Your task to perform on an android device: open app "Messenger Lite" (install if not already installed) Image 0: 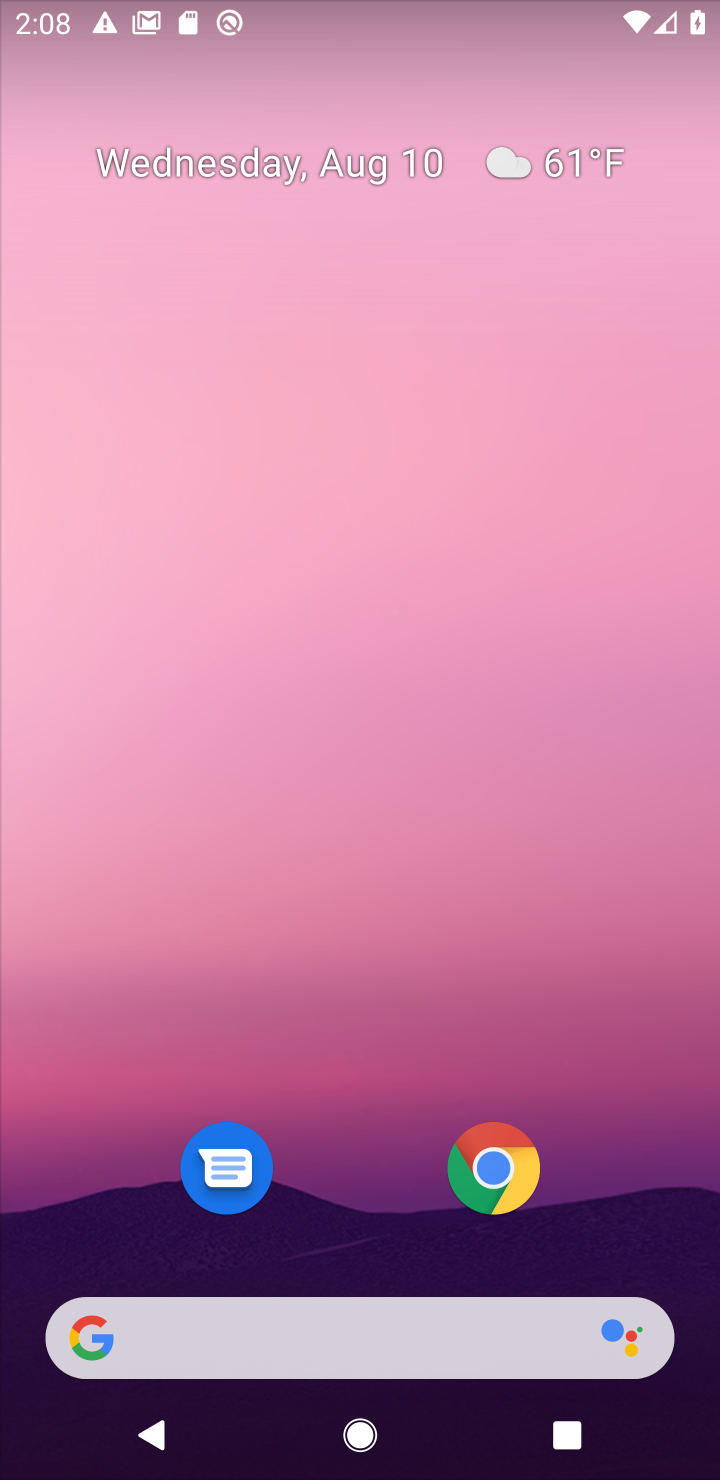
Step 0: drag from (299, 1154) to (271, 192)
Your task to perform on an android device: open app "Messenger Lite" (install if not already installed) Image 1: 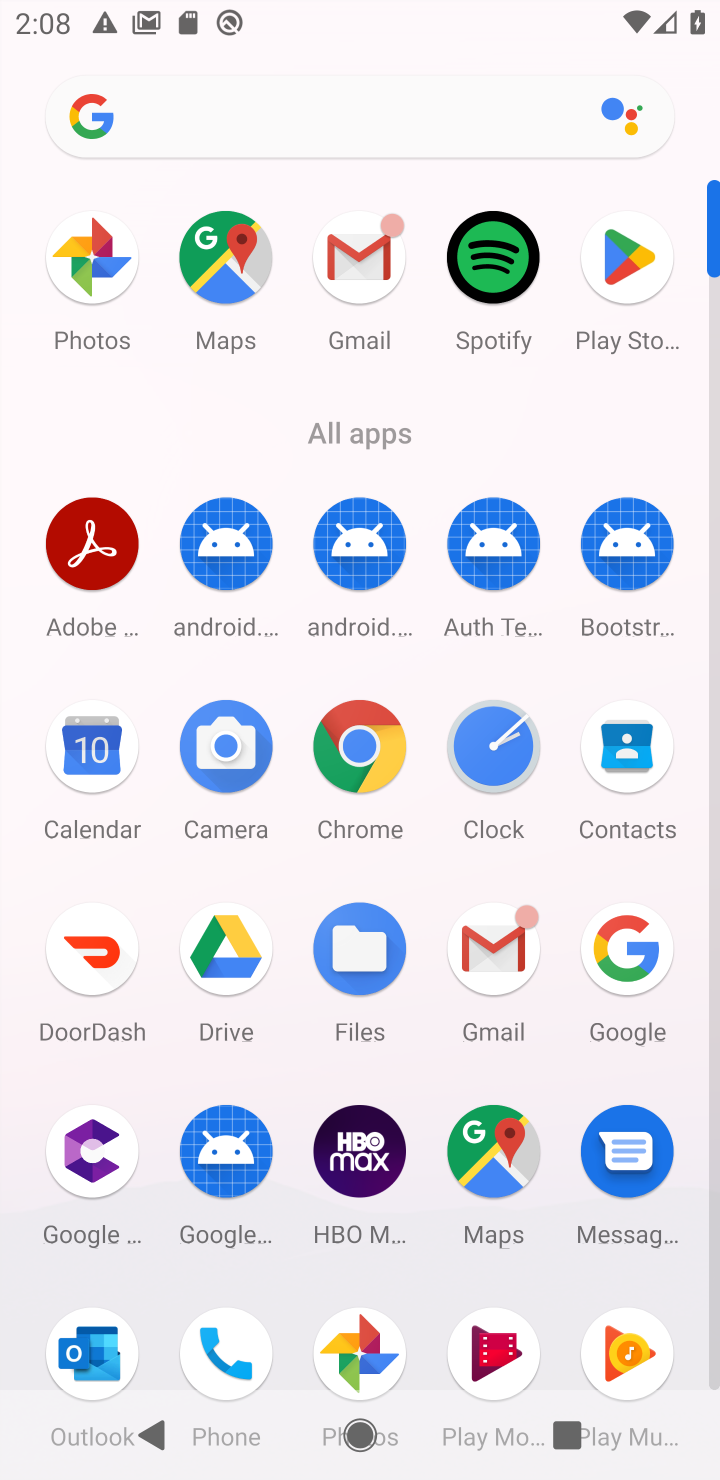
Step 1: click (625, 263)
Your task to perform on an android device: open app "Messenger Lite" (install if not already installed) Image 2: 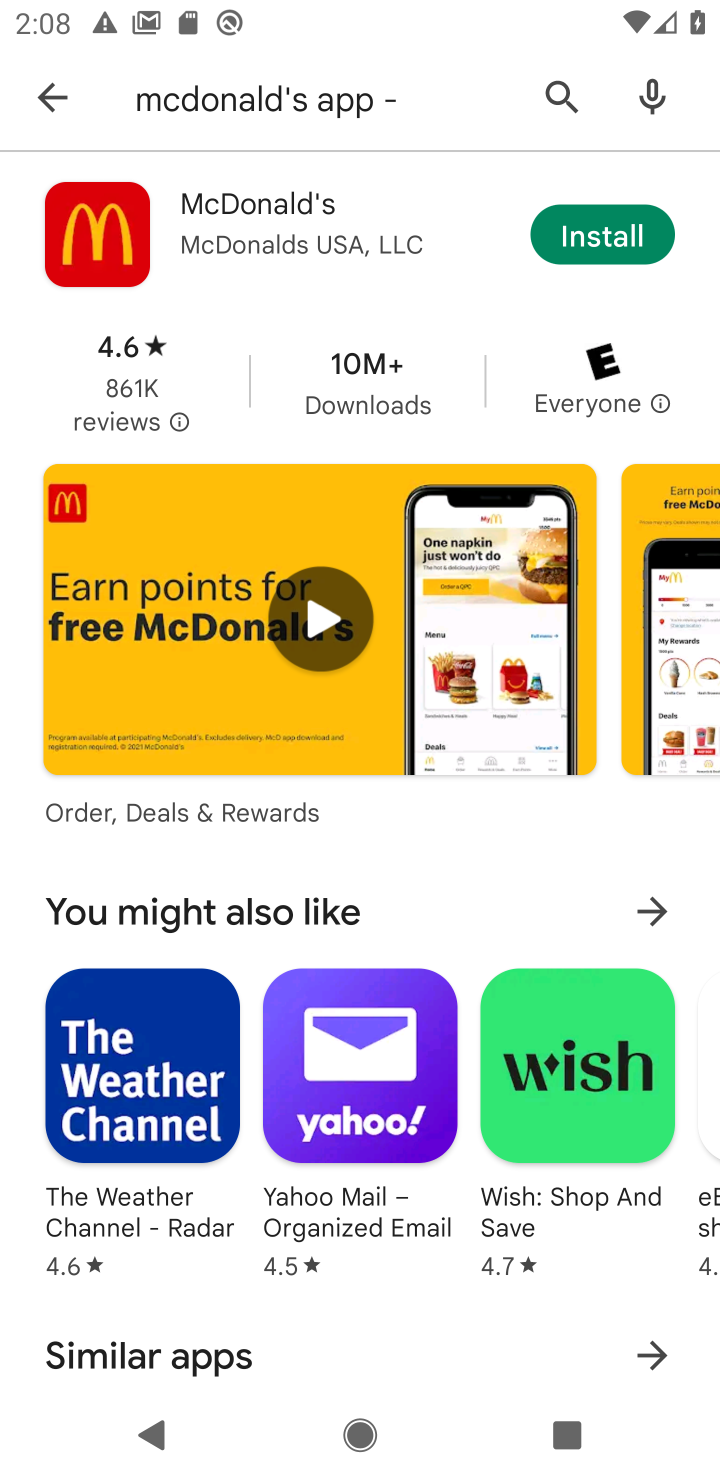
Step 2: press back button
Your task to perform on an android device: open app "Messenger Lite" (install if not already installed) Image 3: 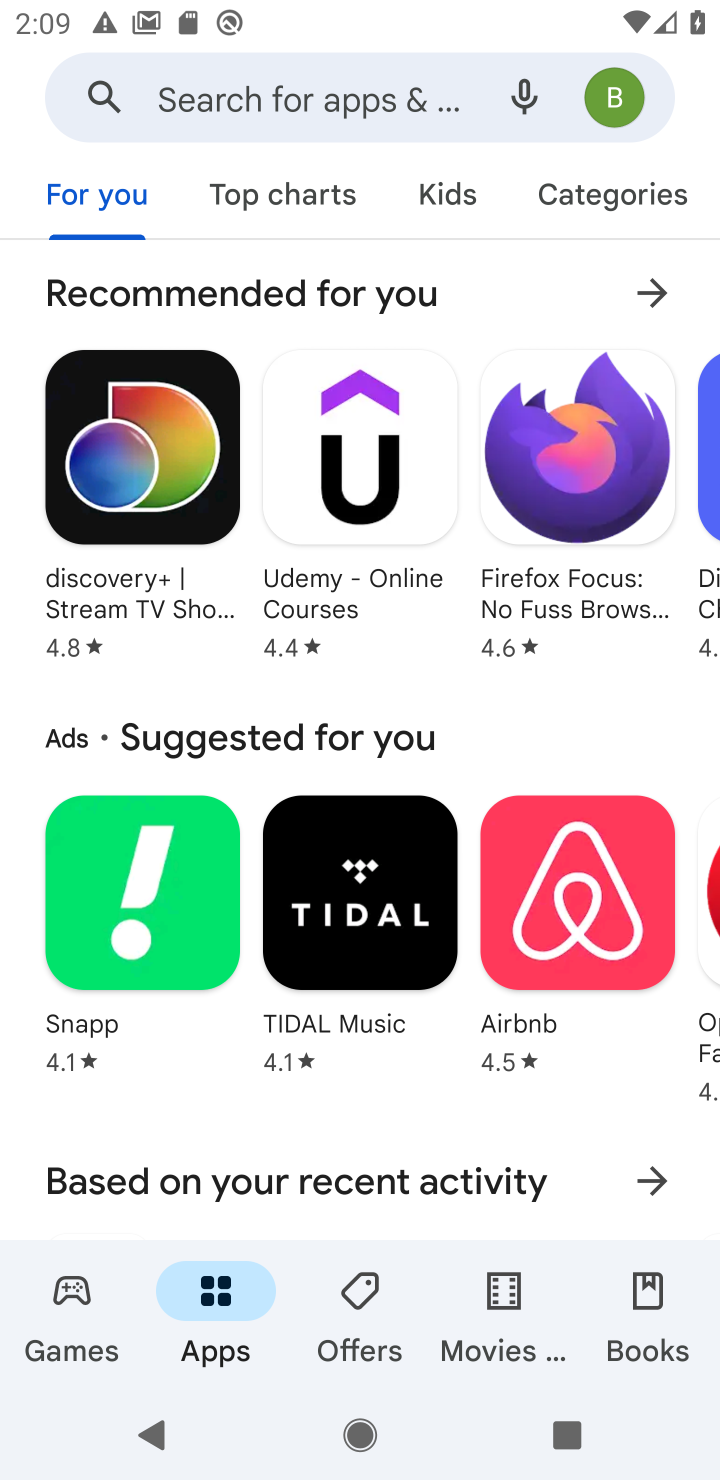
Step 3: click (400, 109)
Your task to perform on an android device: open app "Messenger Lite" (install if not already installed) Image 4: 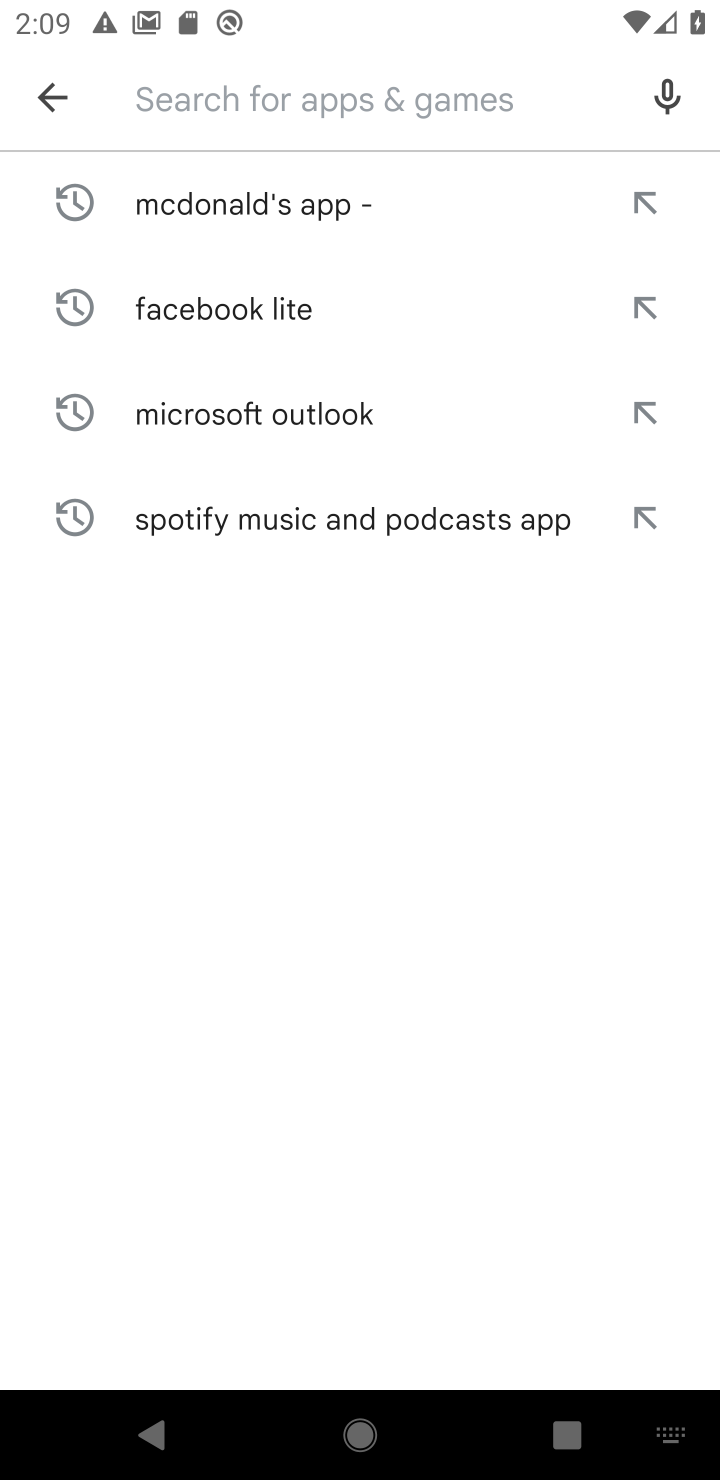
Step 4: type "Messenger Lite"
Your task to perform on an android device: open app "Messenger Lite" (install if not already installed) Image 5: 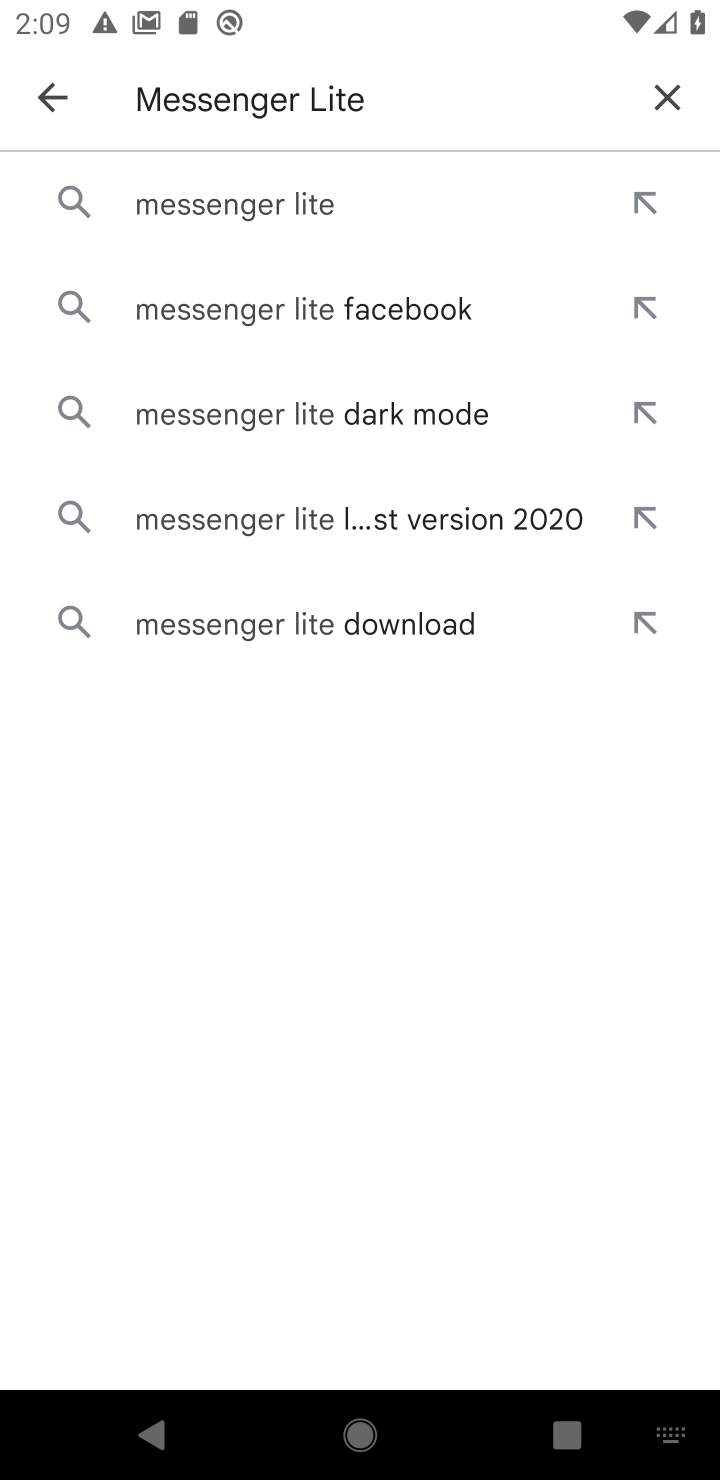
Step 5: click (255, 207)
Your task to perform on an android device: open app "Messenger Lite" (install if not already installed) Image 6: 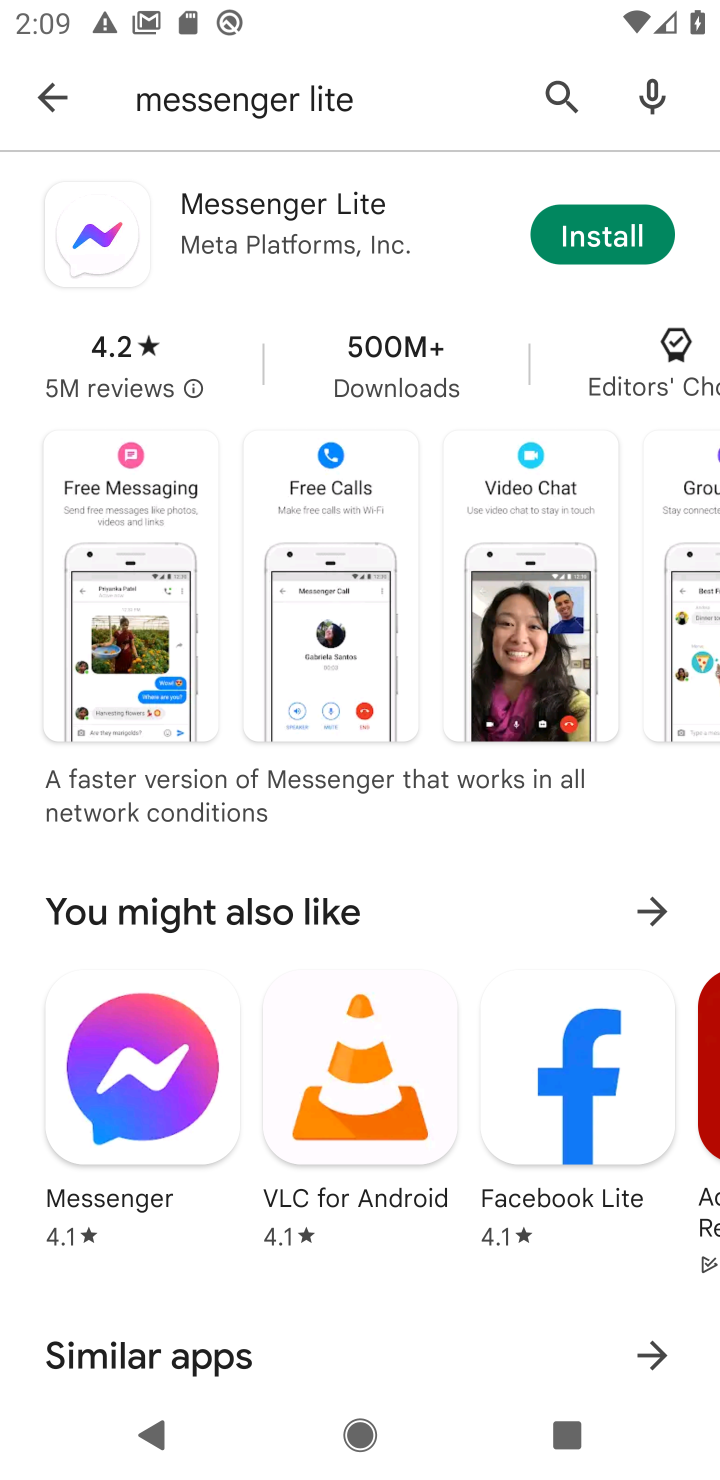
Step 6: click (588, 238)
Your task to perform on an android device: open app "Messenger Lite" (install if not already installed) Image 7: 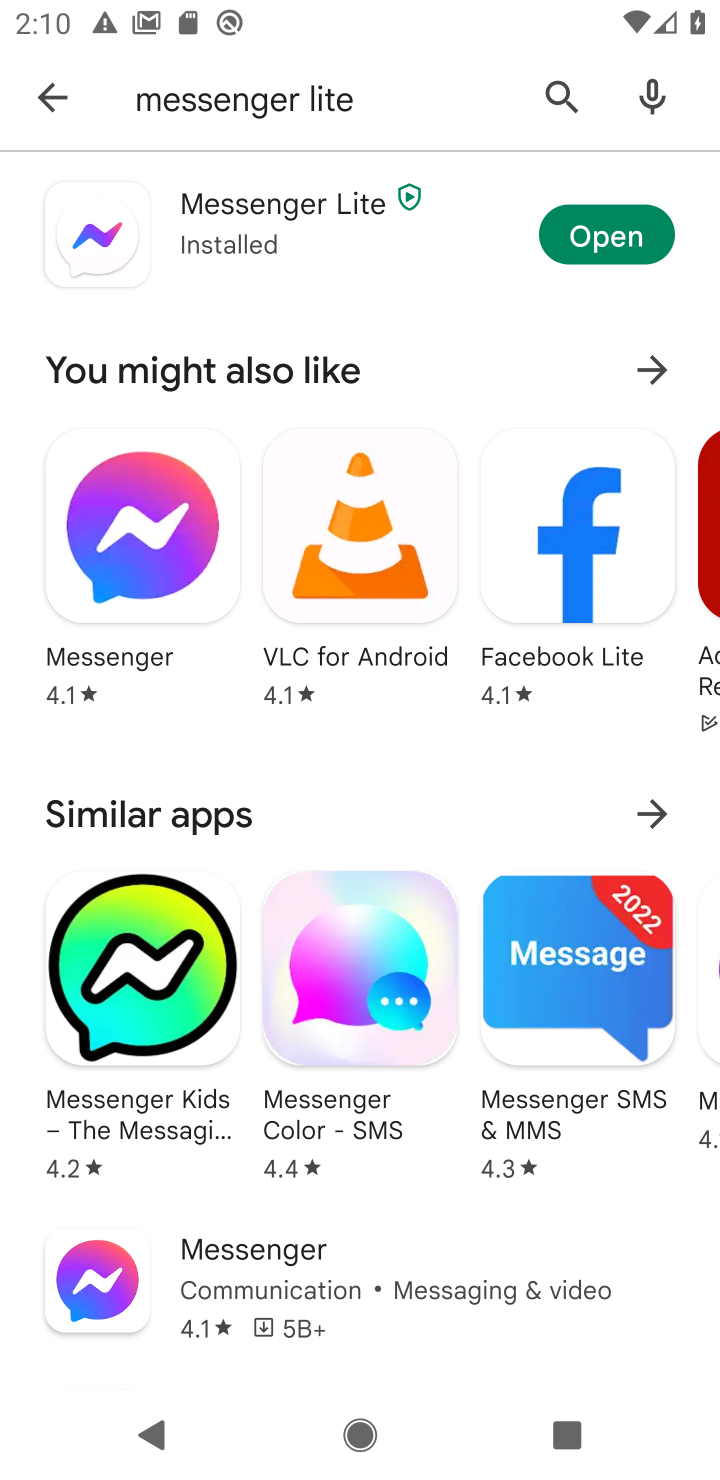
Step 7: click (588, 238)
Your task to perform on an android device: open app "Messenger Lite" (install if not already installed) Image 8: 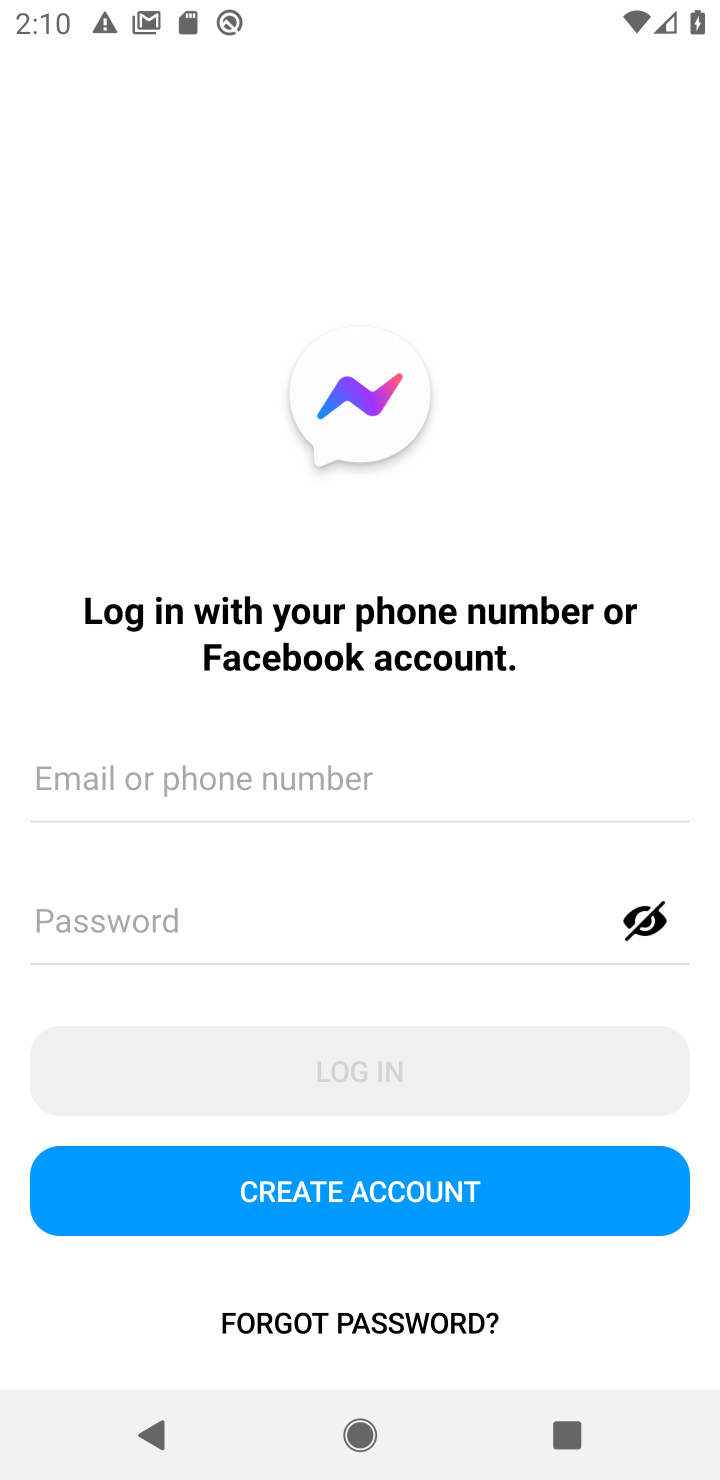
Step 8: task complete